Your task to perform on an android device: turn off improve location accuracy Image 0: 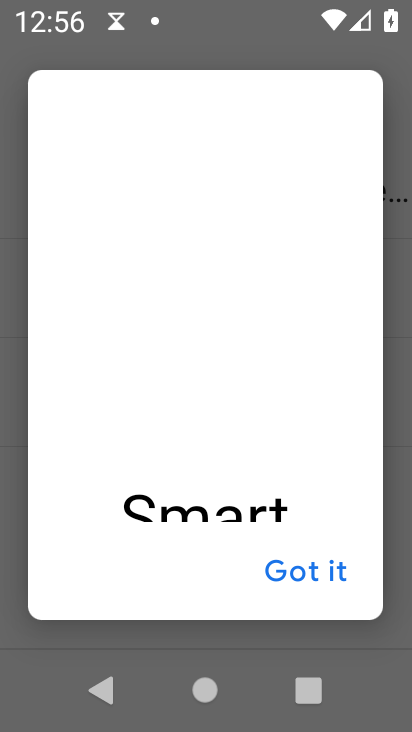
Step 0: press home button
Your task to perform on an android device: turn off improve location accuracy Image 1: 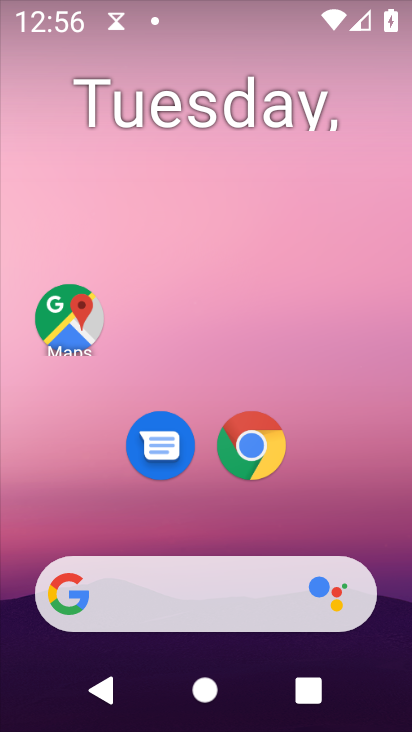
Step 1: drag from (347, 599) to (336, 120)
Your task to perform on an android device: turn off improve location accuracy Image 2: 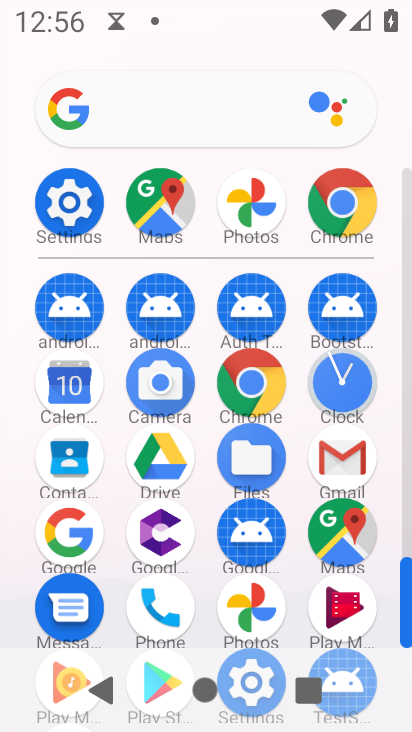
Step 2: click (81, 204)
Your task to perform on an android device: turn off improve location accuracy Image 3: 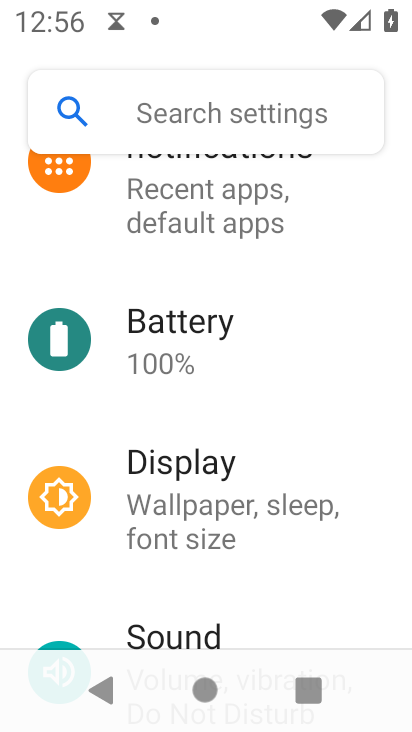
Step 3: drag from (255, 662) to (263, 156)
Your task to perform on an android device: turn off improve location accuracy Image 4: 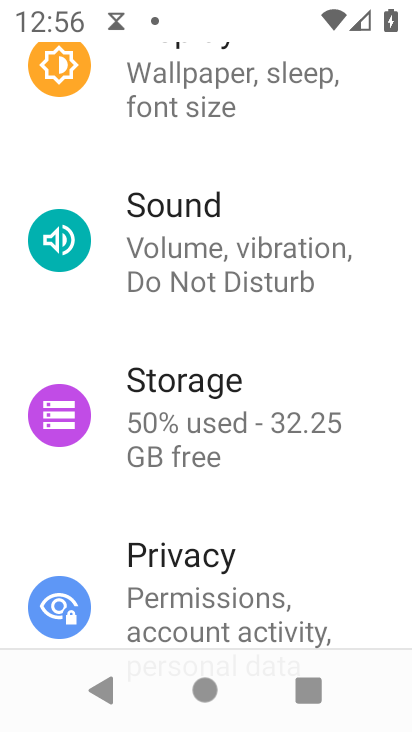
Step 4: drag from (245, 589) to (335, 136)
Your task to perform on an android device: turn off improve location accuracy Image 5: 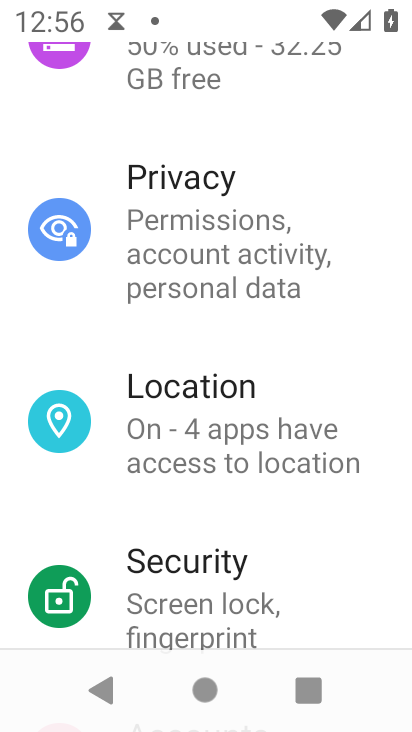
Step 5: click (225, 441)
Your task to perform on an android device: turn off improve location accuracy Image 6: 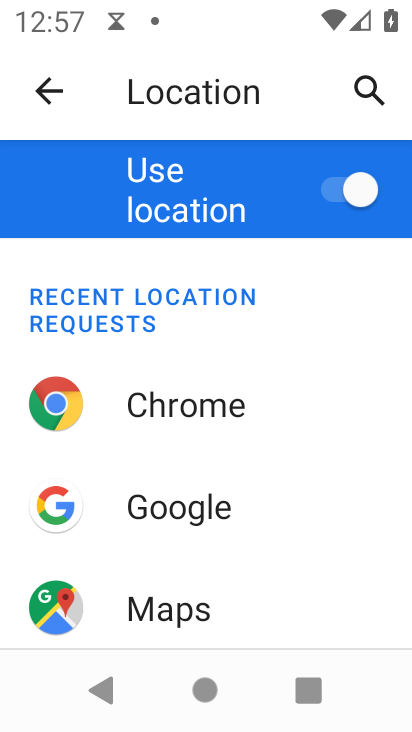
Step 6: drag from (275, 581) to (300, 199)
Your task to perform on an android device: turn off improve location accuracy Image 7: 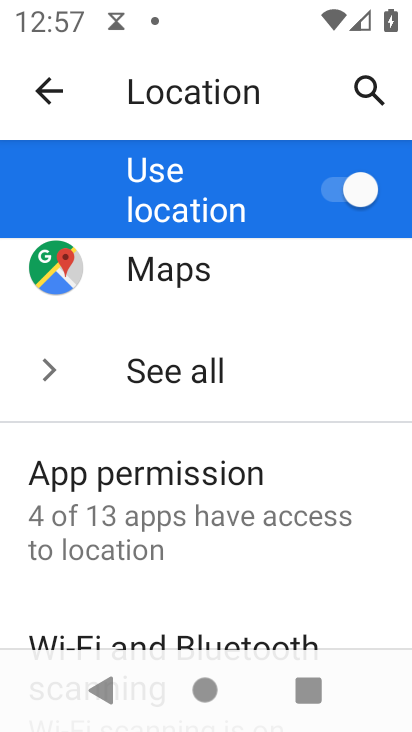
Step 7: drag from (309, 572) to (317, 285)
Your task to perform on an android device: turn off improve location accuracy Image 8: 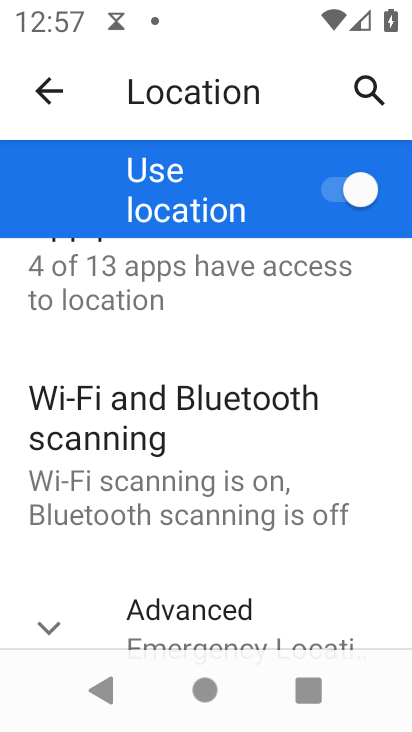
Step 8: drag from (210, 619) to (198, 223)
Your task to perform on an android device: turn off improve location accuracy Image 9: 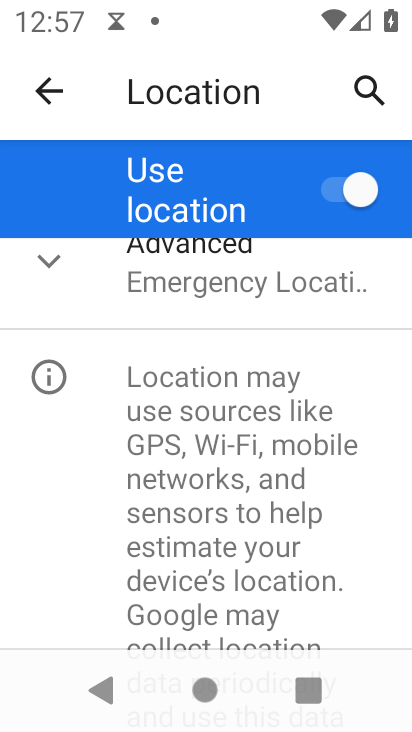
Step 9: click (273, 286)
Your task to perform on an android device: turn off improve location accuracy Image 10: 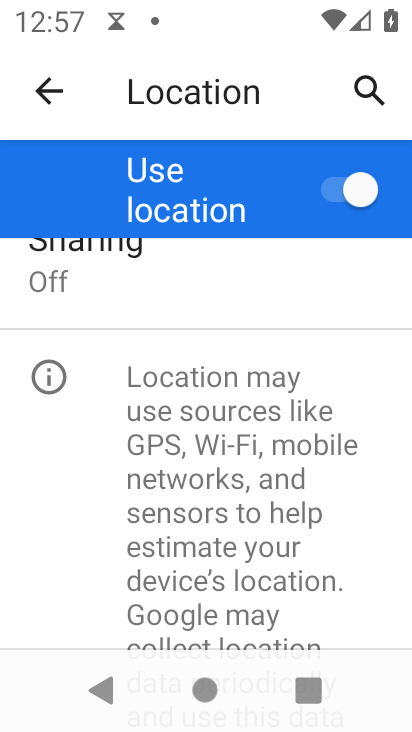
Step 10: drag from (291, 604) to (301, 261)
Your task to perform on an android device: turn off improve location accuracy Image 11: 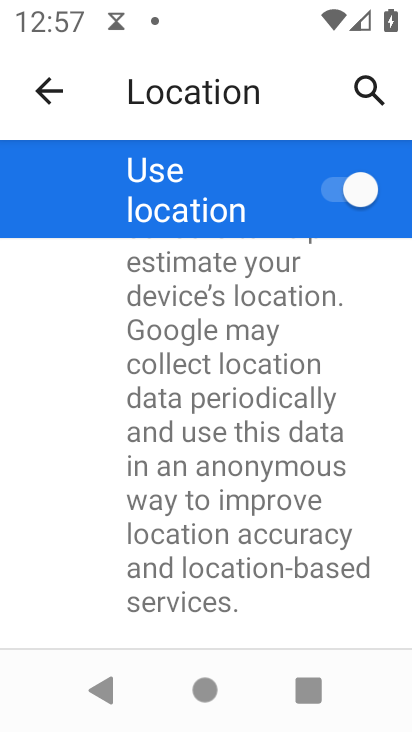
Step 11: drag from (281, 326) to (281, 646)
Your task to perform on an android device: turn off improve location accuracy Image 12: 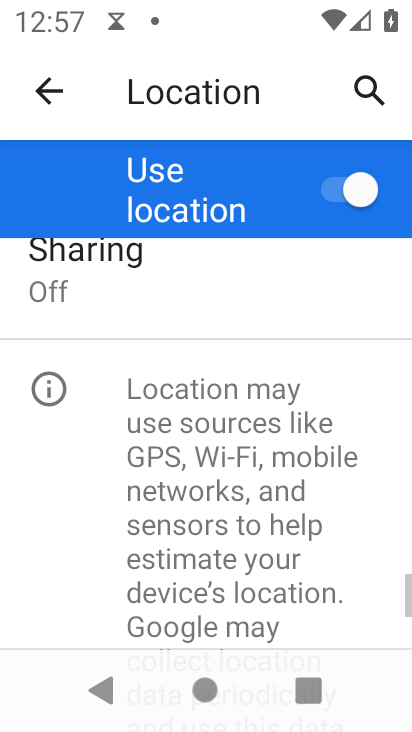
Step 12: drag from (257, 312) to (284, 602)
Your task to perform on an android device: turn off improve location accuracy Image 13: 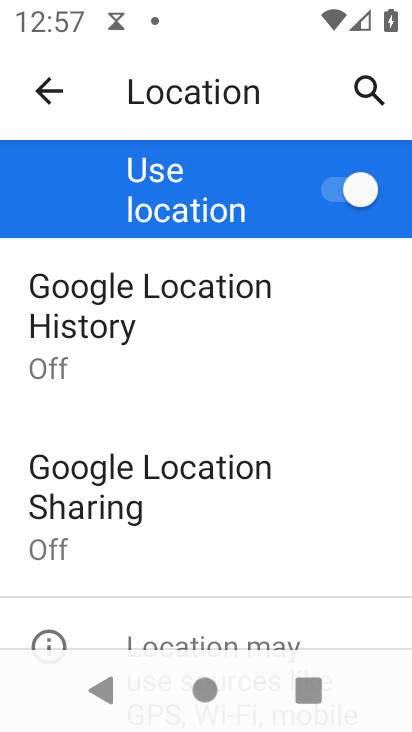
Step 13: drag from (247, 359) to (263, 684)
Your task to perform on an android device: turn off improve location accuracy Image 14: 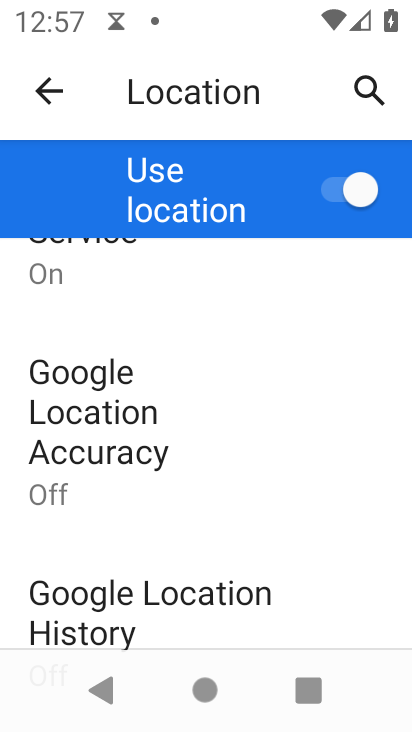
Step 14: click (197, 431)
Your task to perform on an android device: turn off improve location accuracy Image 15: 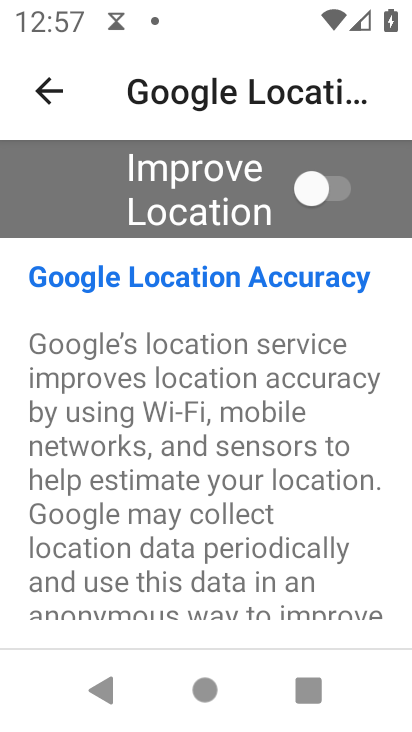
Step 15: task complete